Your task to perform on an android device: turn off sleep mode Image 0: 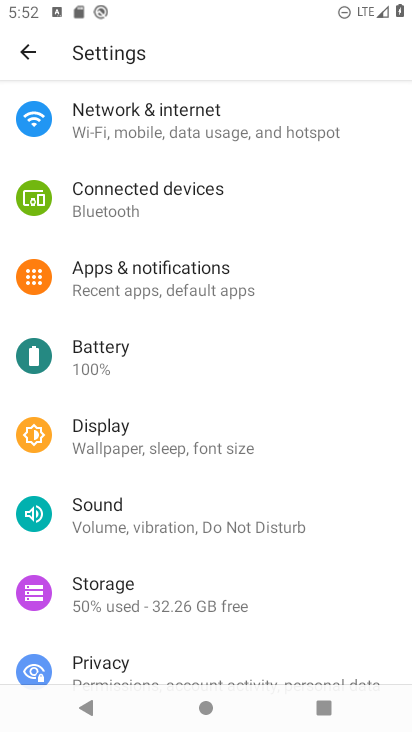
Step 0: press home button
Your task to perform on an android device: turn off sleep mode Image 1: 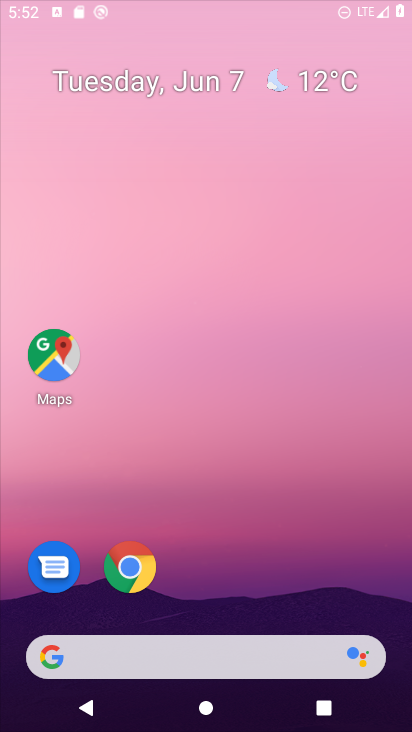
Step 1: drag from (272, 710) to (360, 68)
Your task to perform on an android device: turn off sleep mode Image 2: 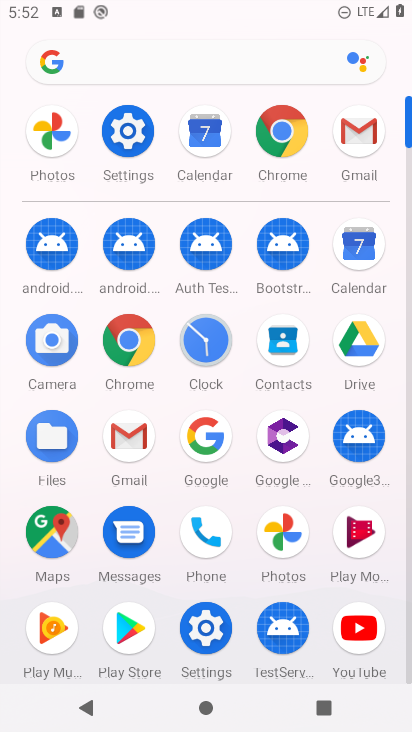
Step 2: click (146, 141)
Your task to perform on an android device: turn off sleep mode Image 3: 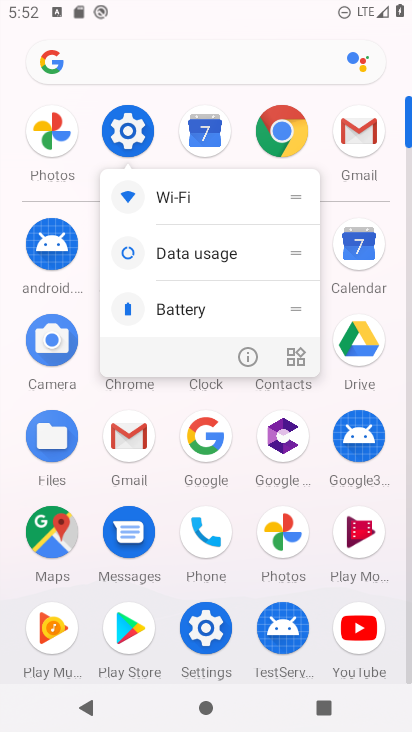
Step 3: click (151, 128)
Your task to perform on an android device: turn off sleep mode Image 4: 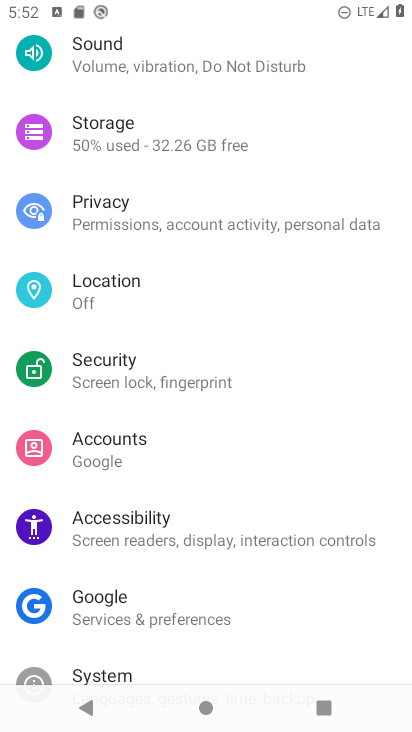
Step 4: drag from (236, 179) to (270, 685)
Your task to perform on an android device: turn off sleep mode Image 5: 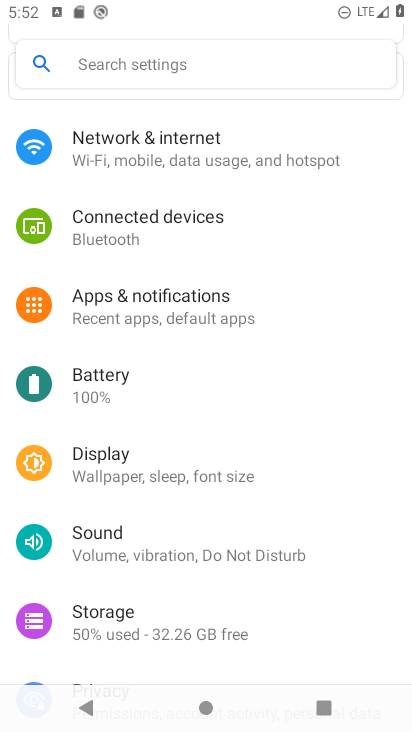
Step 5: click (223, 463)
Your task to perform on an android device: turn off sleep mode Image 6: 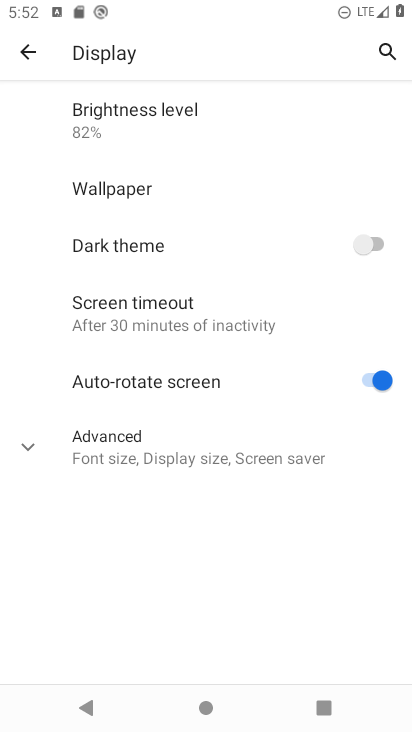
Step 6: task complete